Your task to perform on an android device: Open Yahoo.com Image 0: 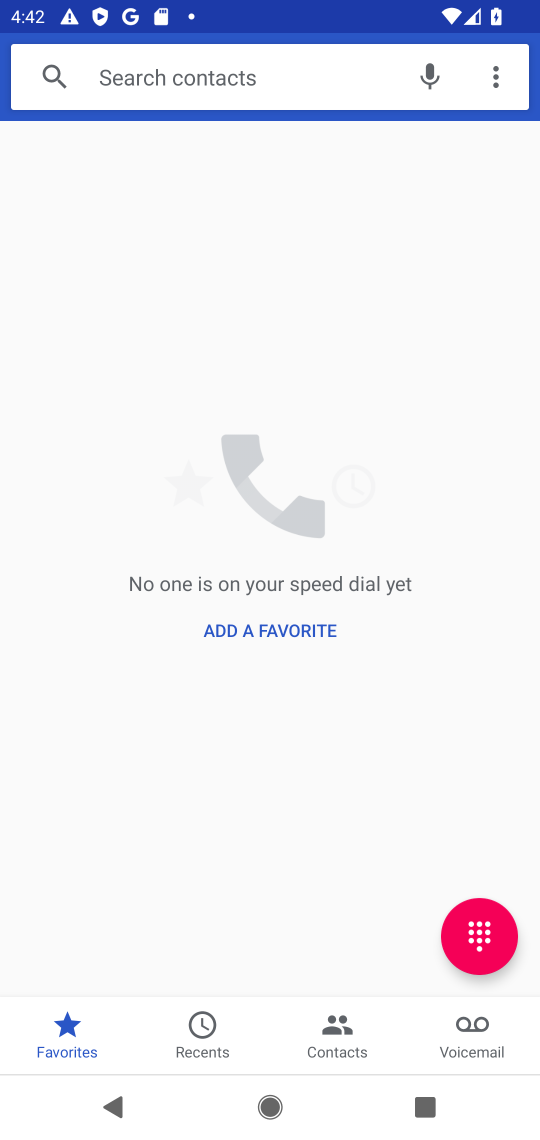
Step 0: press back button
Your task to perform on an android device: Open Yahoo.com Image 1: 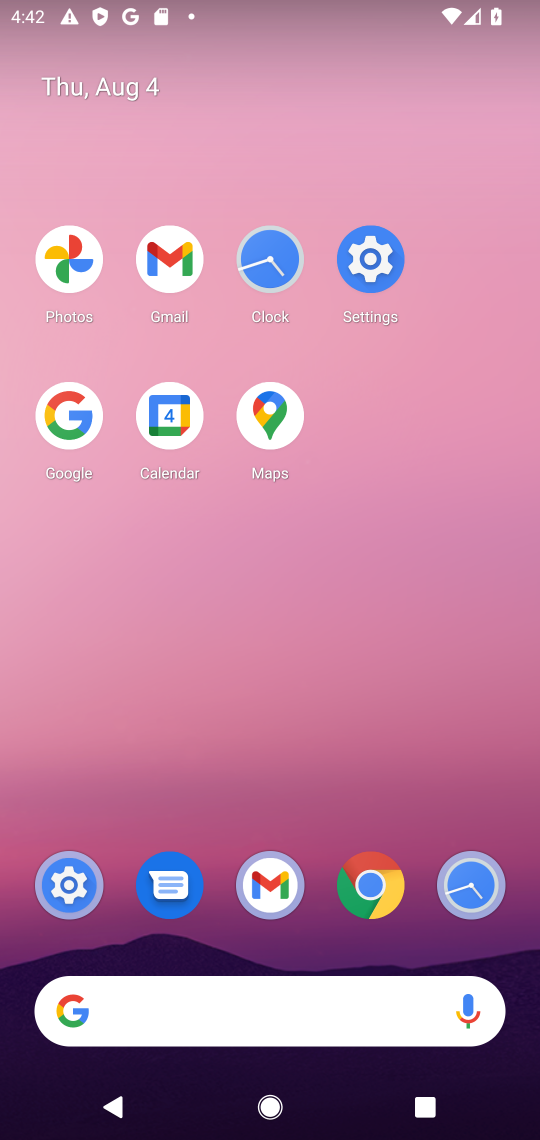
Step 1: click (361, 876)
Your task to perform on an android device: Open Yahoo.com Image 2: 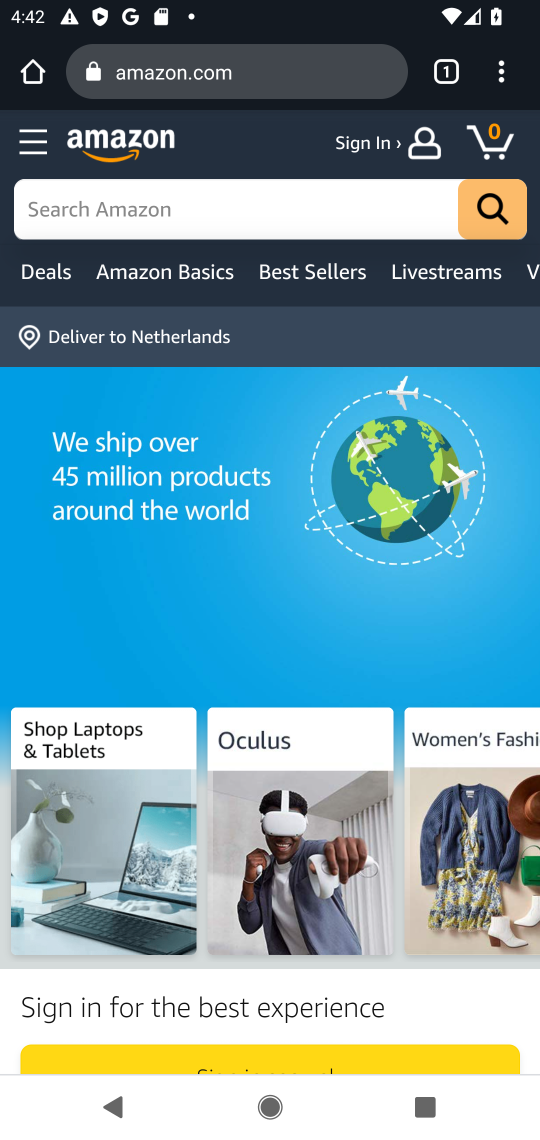
Step 2: click (441, 70)
Your task to perform on an android device: Open Yahoo.com Image 3: 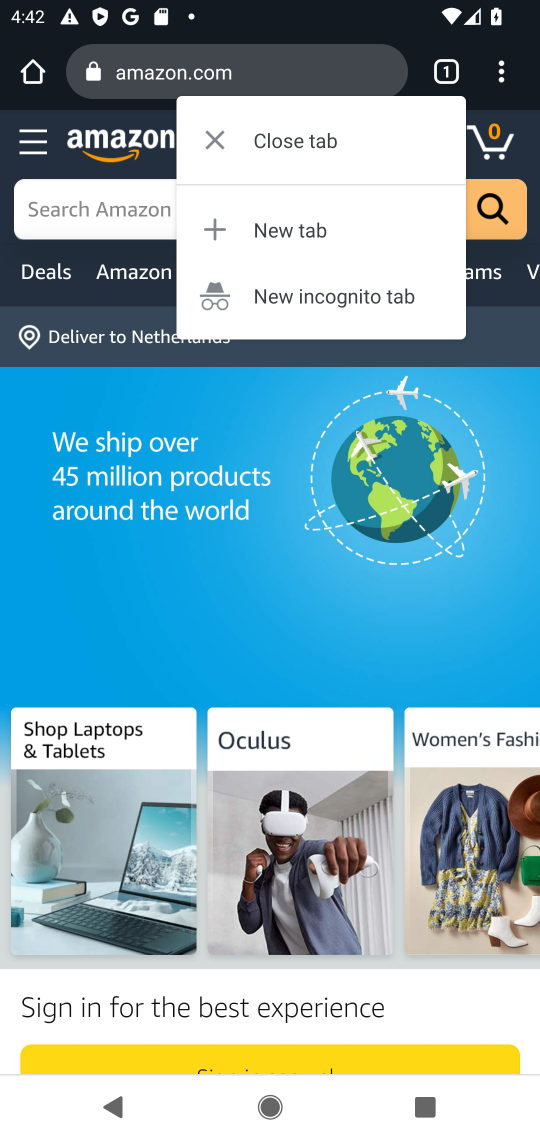
Step 3: click (448, 74)
Your task to perform on an android device: Open Yahoo.com Image 4: 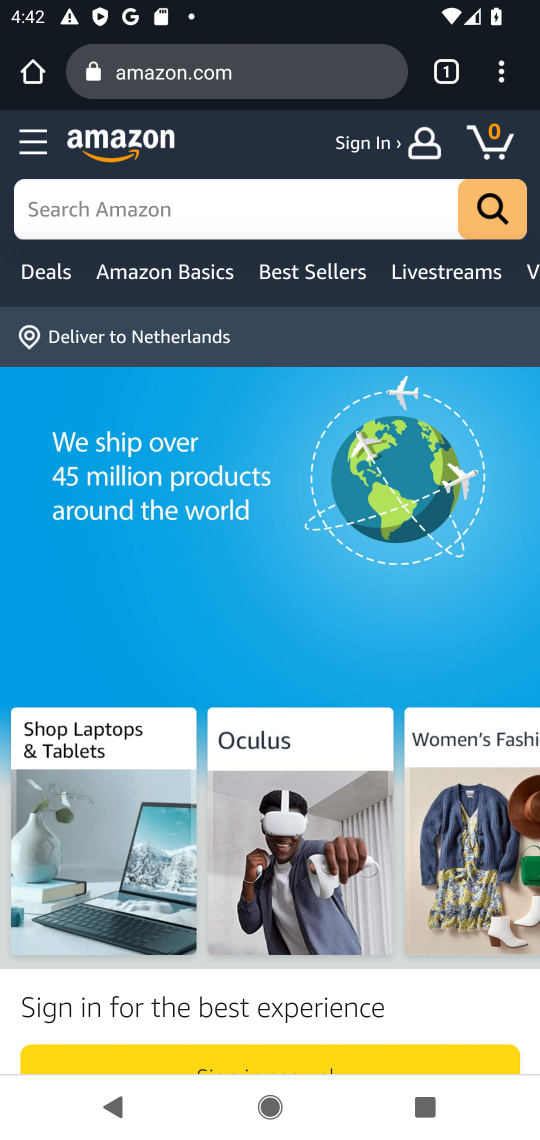
Step 4: click (441, 54)
Your task to perform on an android device: Open Yahoo.com Image 5: 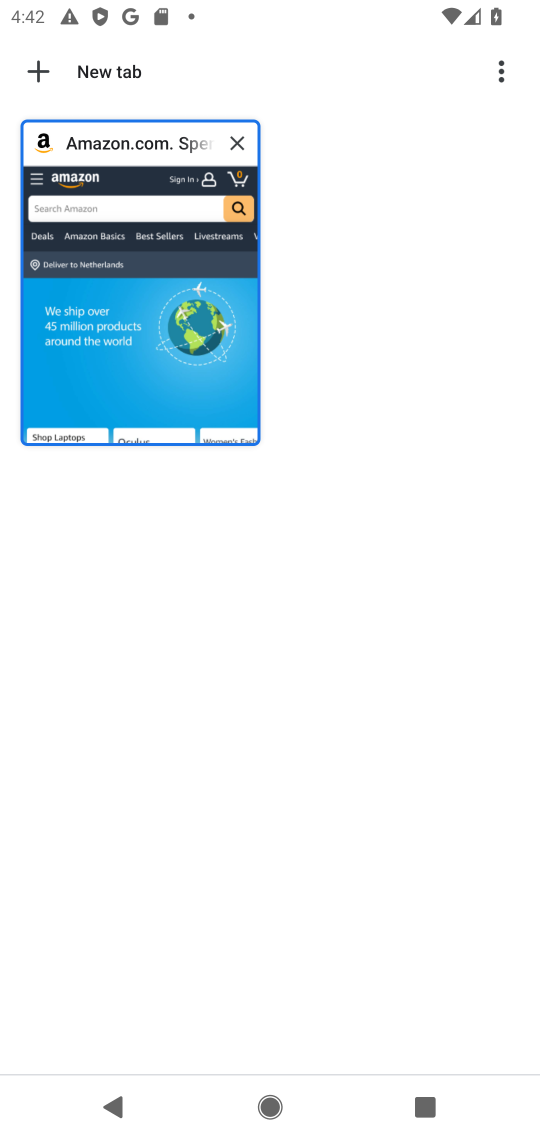
Step 5: click (42, 75)
Your task to perform on an android device: Open Yahoo.com Image 6: 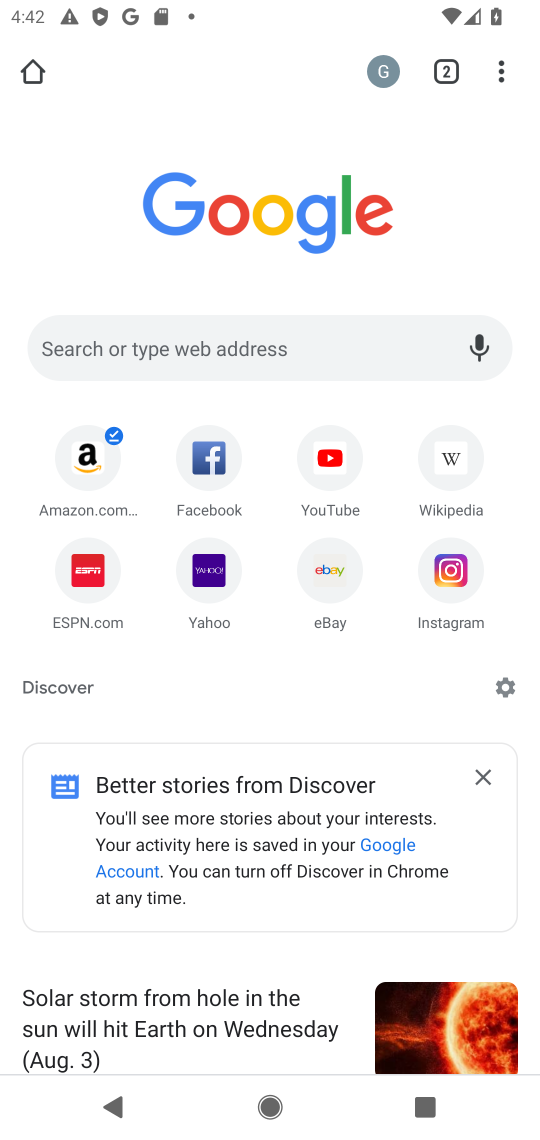
Step 6: click (209, 566)
Your task to perform on an android device: Open Yahoo.com Image 7: 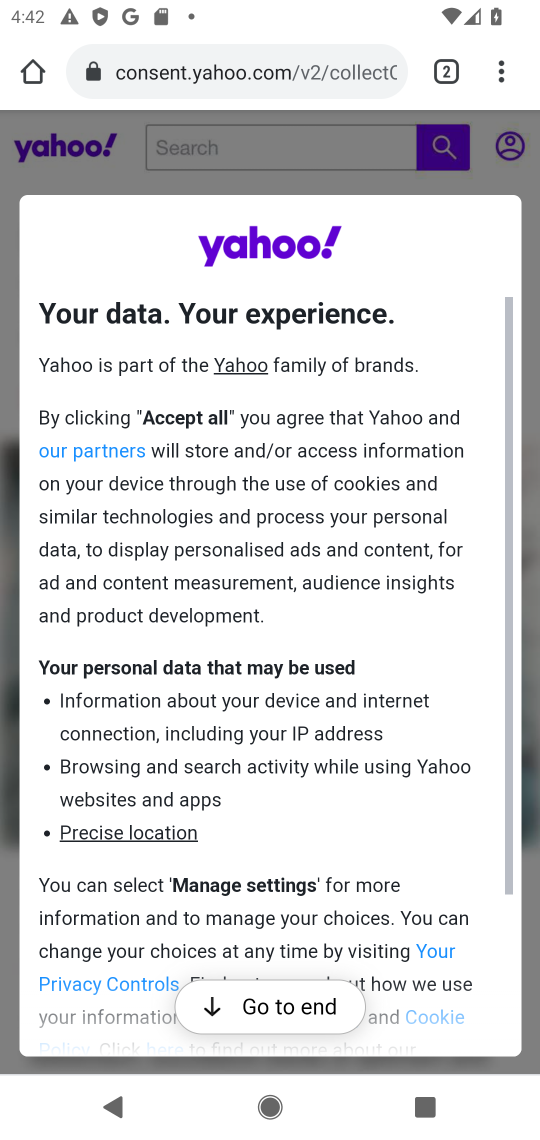
Step 7: task complete